Your task to perform on an android device: open the mobile data screen to see how much data has been used Image 0: 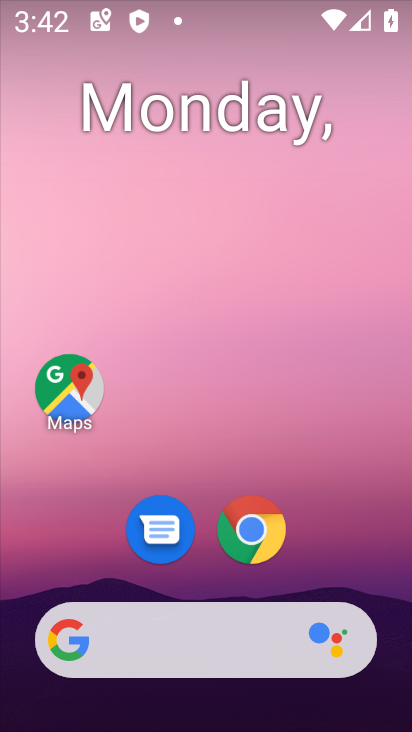
Step 0: drag from (228, 715) to (219, 184)
Your task to perform on an android device: open the mobile data screen to see how much data has been used Image 1: 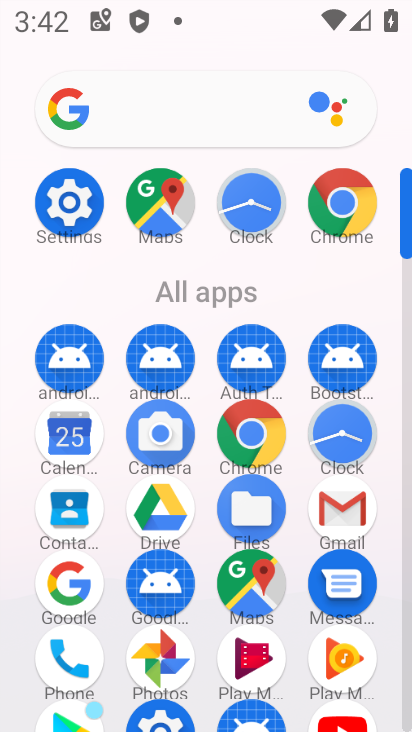
Step 1: click (69, 209)
Your task to perform on an android device: open the mobile data screen to see how much data has been used Image 2: 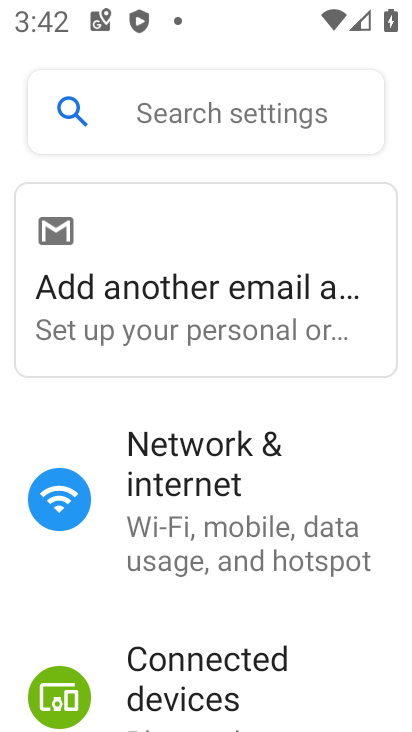
Step 2: drag from (198, 646) to (193, 420)
Your task to perform on an android device: open the mobile data screen to see how much data has been used Image 3: 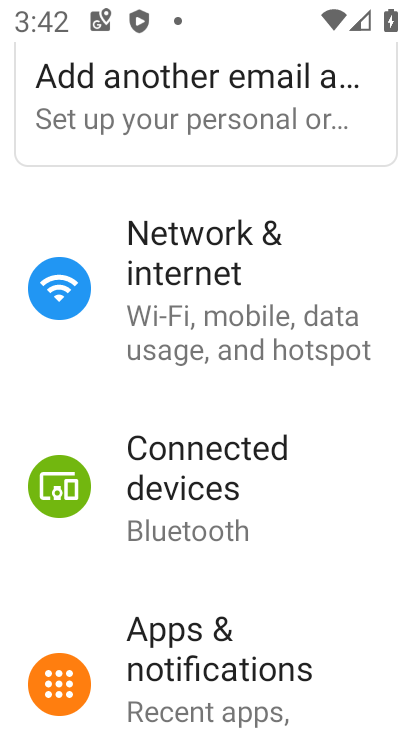
Step 3: click (182, 268)
Your task to perform on an android device: open the mobile data screen to see how much data has been used Image 4: 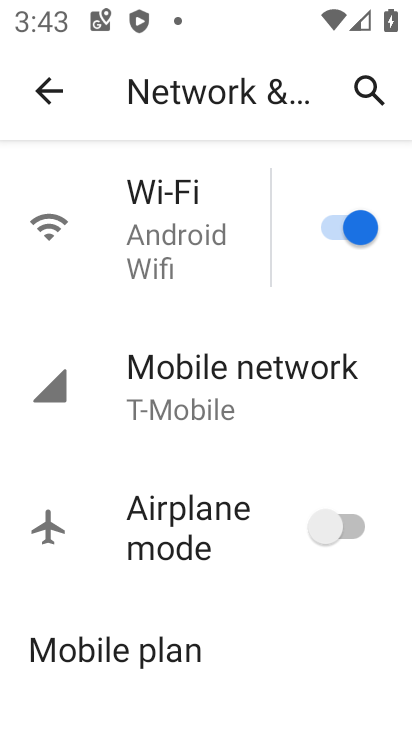
Step 4: click (193, 387)
Your task to perform on an android device: open the mobile data screen to see how much data has been used Image 5: 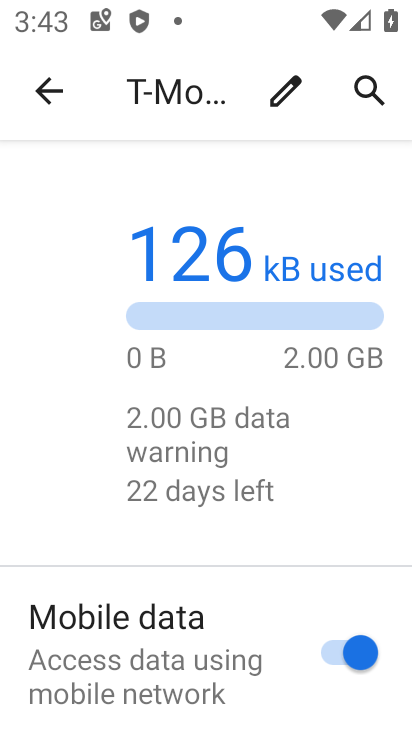
Step 5: drag from (221, 632) to (196, 318)
Your task to perform on an android device: open the mobile data screen to see how much data has been used Image 6: 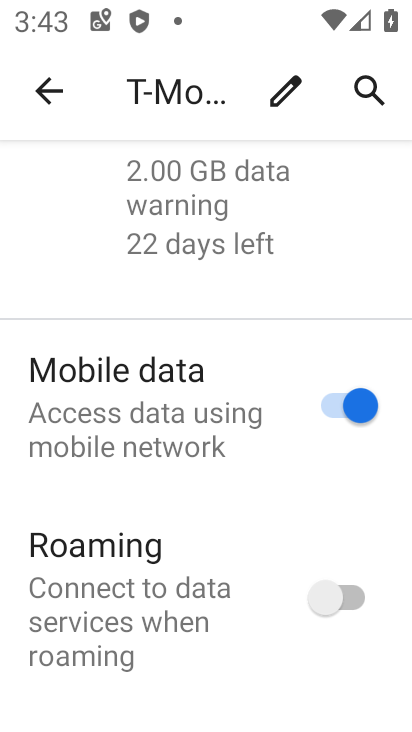
Step 6: drag from (185, 665) to (171, 408)
Your task to perform on an android device: open the mobile data screen to see how much data has been used Image 7: 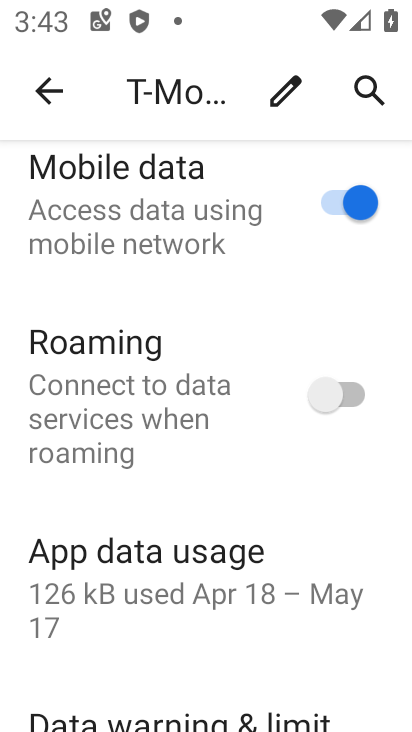
Step 7: click (161, 584)
Your task to perform on an android device: open the mobile data screen to see how much data has been used Image 8: 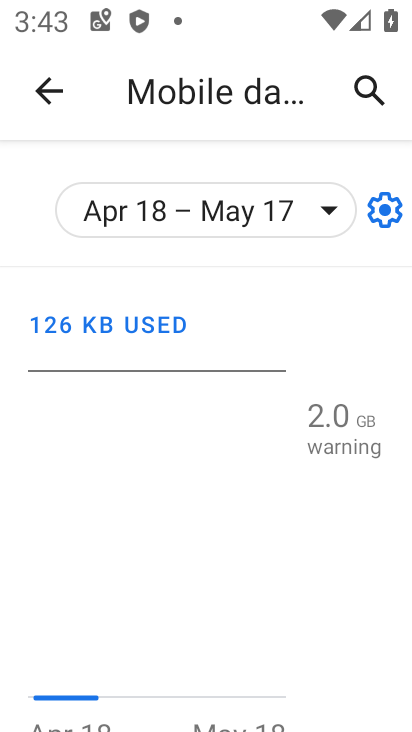
Step 8: task complete